Your task to perform on an android device: Go to CNN.com Image 0: 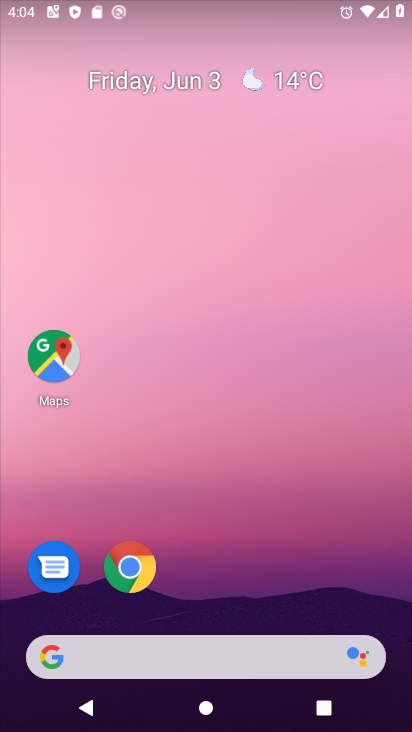
Step 0: drag from (260, 676) to (223, 173)
Your task to perform on an android device: Go to CNN.com Image 1: 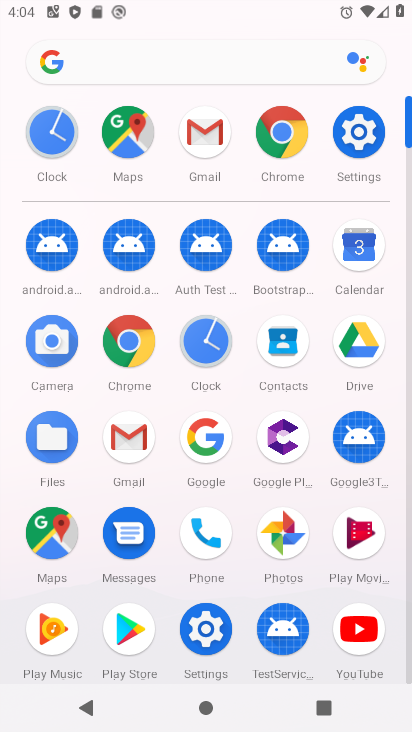
Step 1: click (284, 129)
Your task to perform on an android device: Go to CNN.com Image 2: 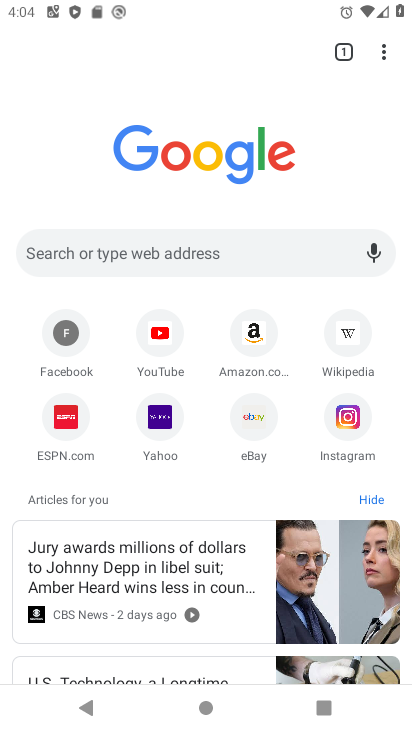
Step 2: click (131, 247)
Your task to perform on an android device: Go to CNN.com Image 3: 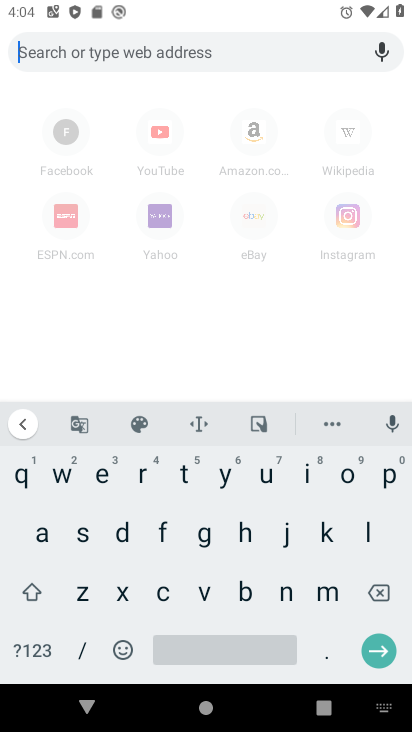
Step 3: click (161, 596)
Your task to perform on an android device: Go to CNN.com Image 4: 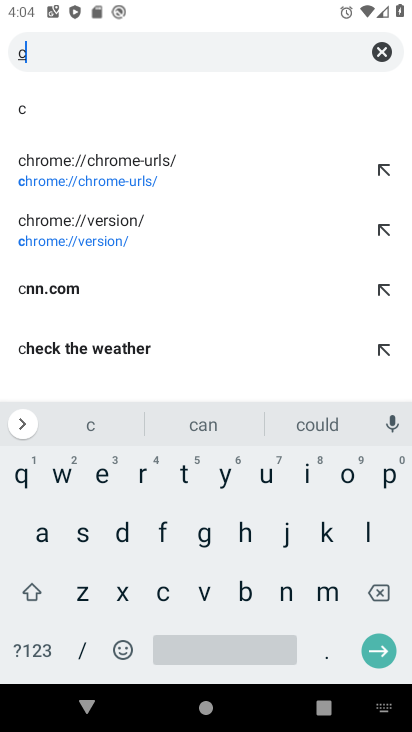
Step 4: click (99, 298)
Your task to perform on an android device: Go to CNN.com Image 5: 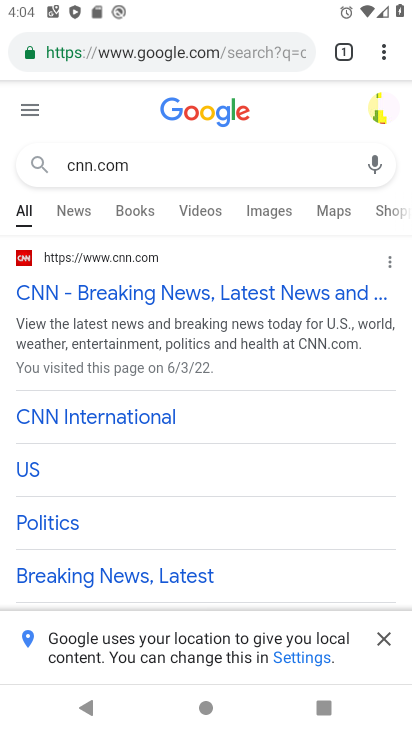
Step 5: click (99, 296)
Your task to perform on an android device: Go to CNN.com Image 6: 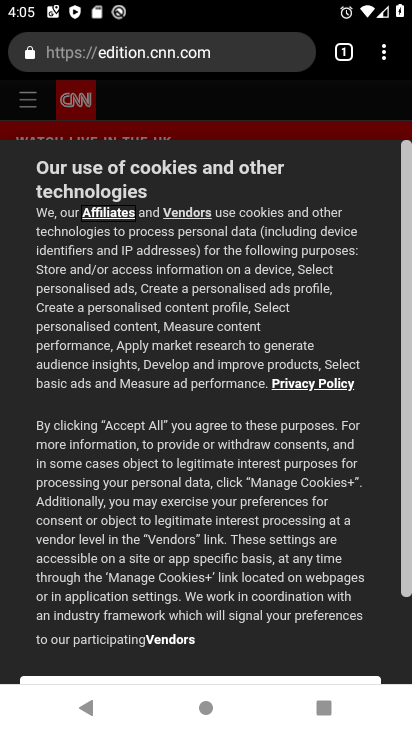
Step 6: task complete